Your task to perform on an android device: clear history in the chrome app Image 0: 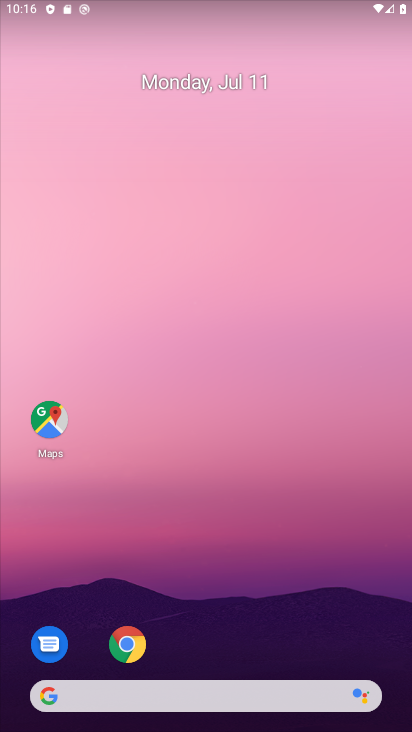
Step 0: drag from (280, 279) to (278, 211)
Your task to perform on an android device: clear history in the chrome app Image 1: 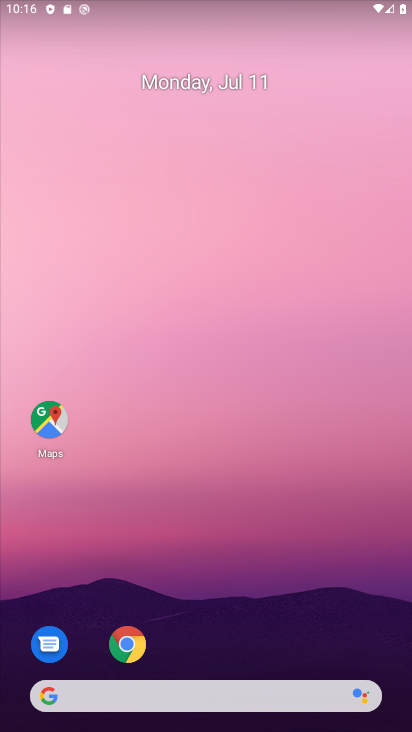
Step 1: drag from (231, 497) to (185, 168)
Your task to perform on an android device: clear history in the chrome app Image 2: 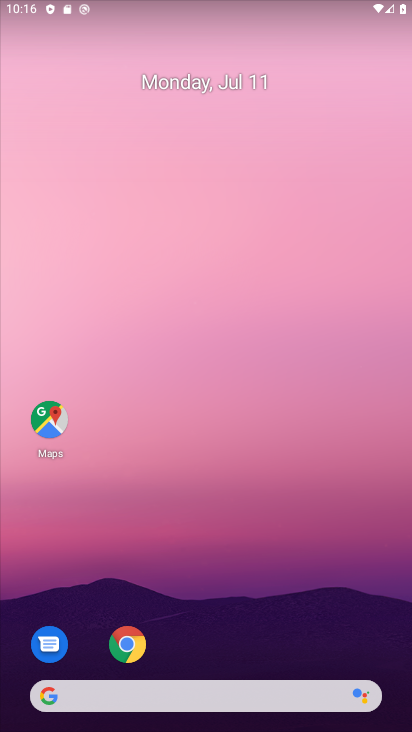
Step 2: drag from (284, 623) to (221, 169)
Your task to perform on an android device: clear history in the chrome app Image 3: 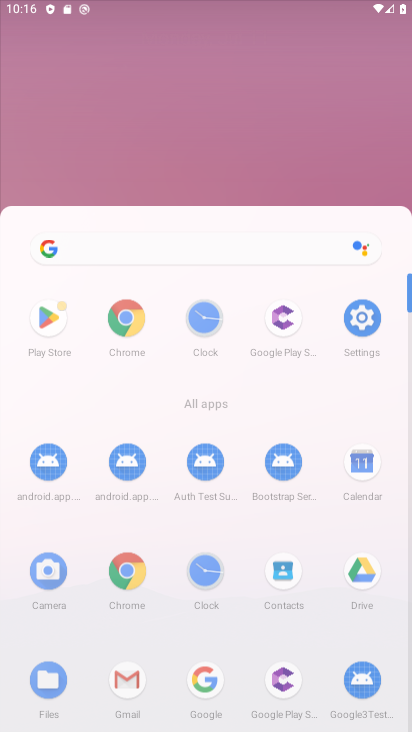
Step 3: drag from (238, 353) to (238, 198)
Your task to perform on an android device: clear history in the chrome app Image 4: 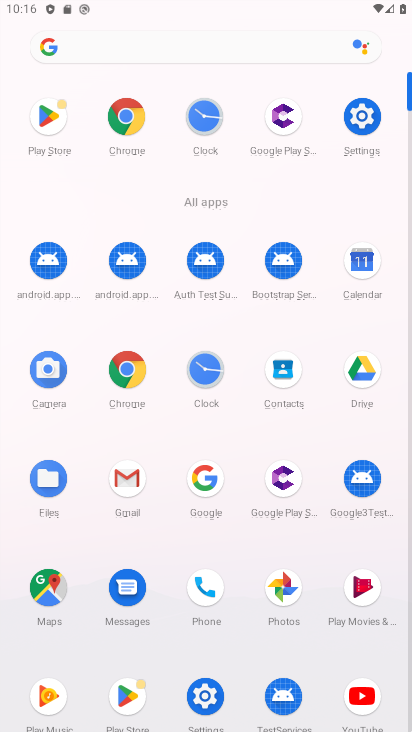
Step 4: click (119, 110)
Your task to perform on an android device: clear history in the chrome app Image 5: 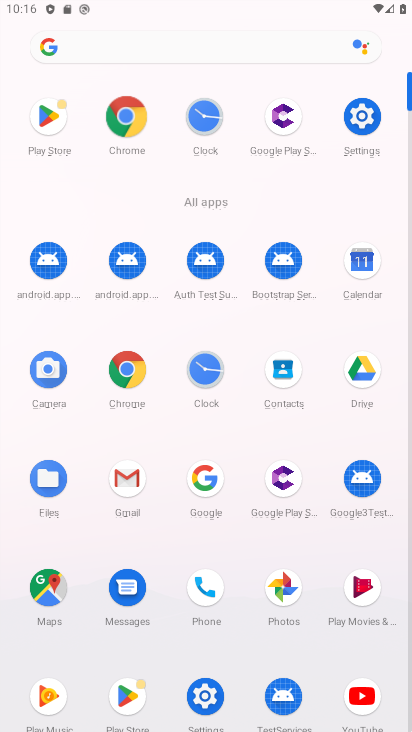
Step 5: click (120, 110)
Your task to perform on an android device: clear history in the chrome app Image 6: 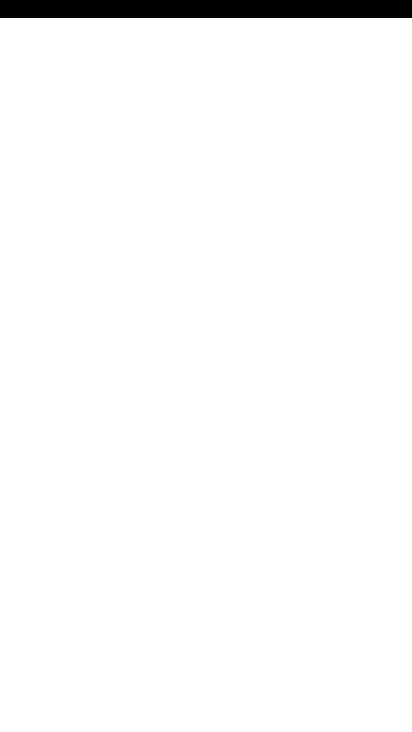
Step 6: click (121, 109)
Your task to perform on an android device: clear history in the chrome app Image 7: 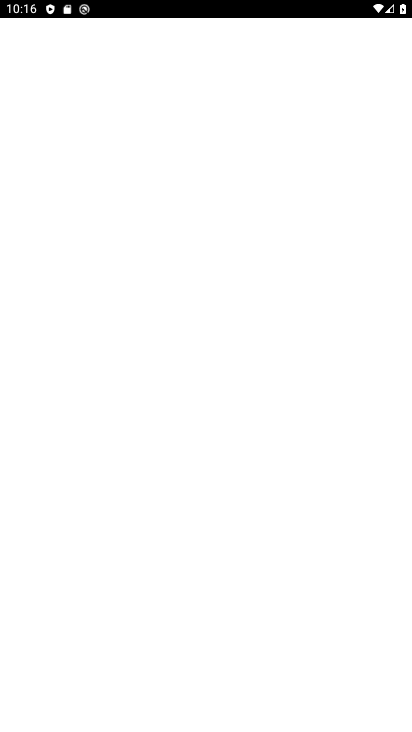
Step 7: click (121, 112)
Your task to perform on an android device: clear history in the chrome app Image 8: 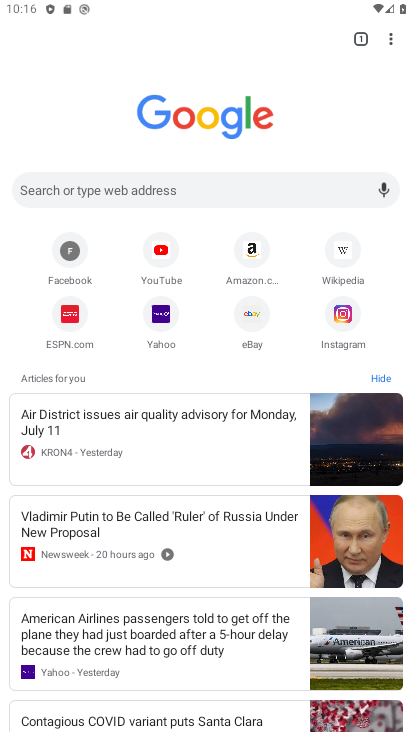
Step 8: click (382, 36)
Your task to perform on an android device: clear history in the chrome app Image 9: 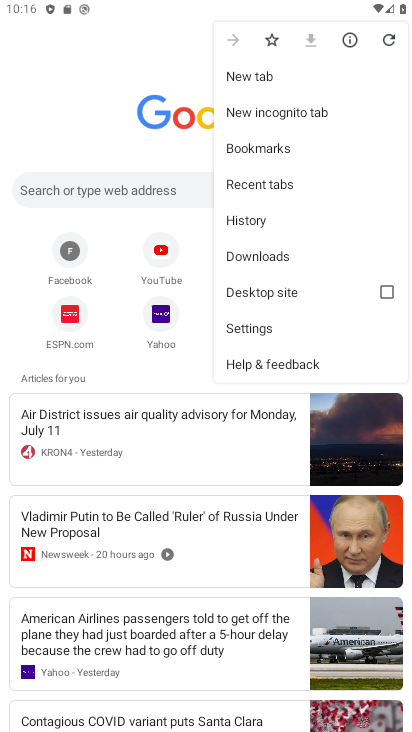
Step 9: click (254, 211)
Your task to perform on an android device: clear history in the chrome app Image 10: 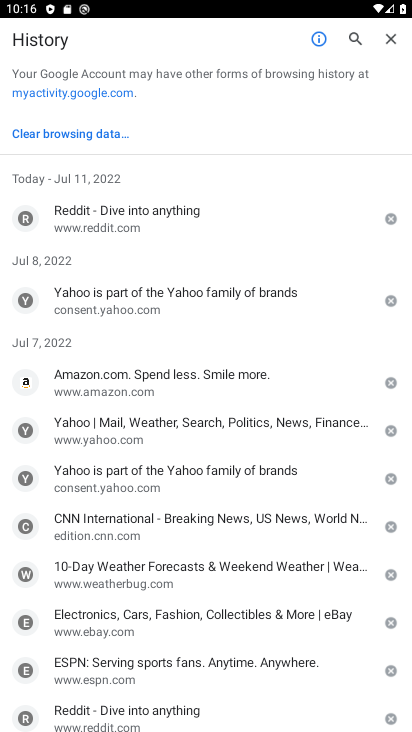
Step 10: click (68, 128)
Your task to perform on an android device: clear history in the chrome app Image 11: 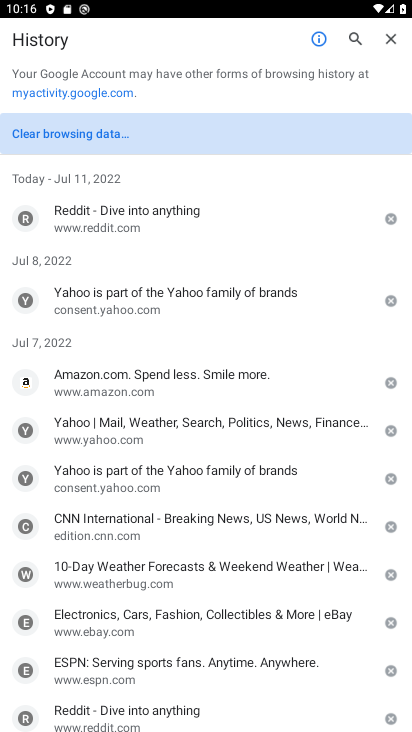
Step 11: click (70, 129)
Your task to perform on an android device: clear history in the chrome app Image 12: 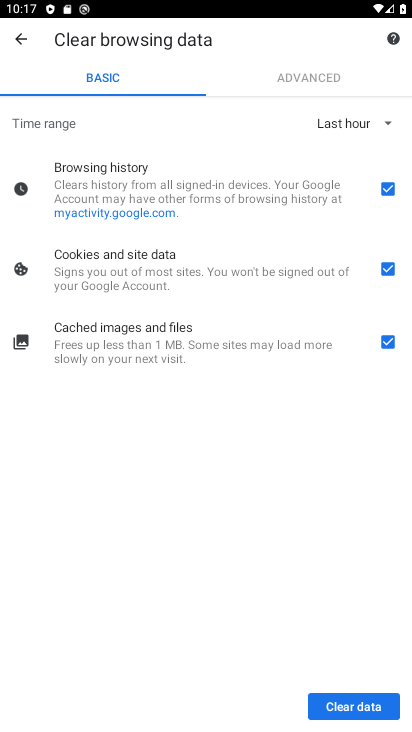
Step 12: click (348, 705)
Your task to perform on an android device: clear history in the chrome app Image 13: 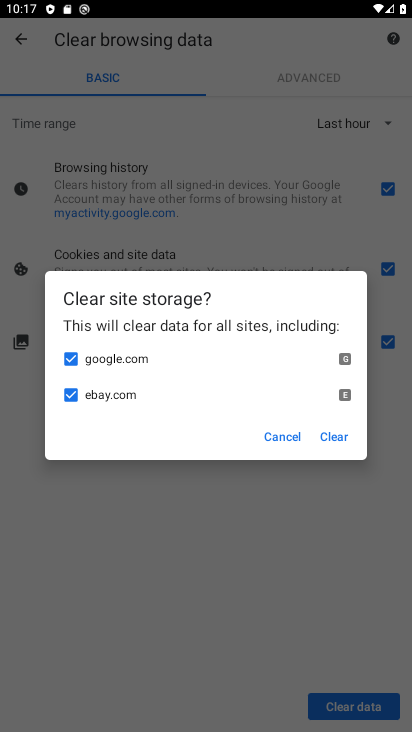
Step 13: click (329, 432)
Your task to perform on an android device: clear history in the chrome app Image 14: 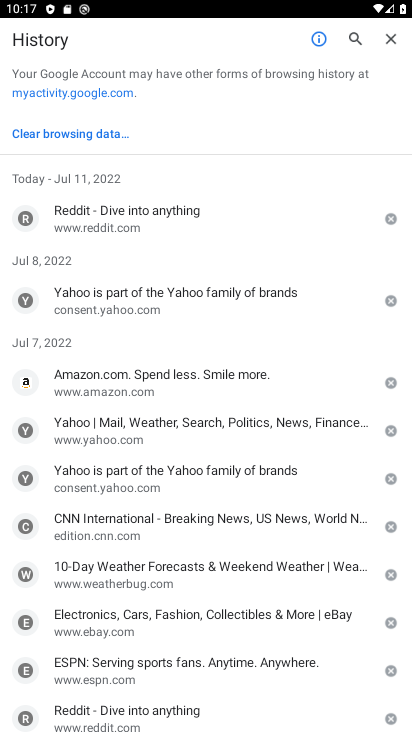
Step 14: task complete